Your task to perform on an android device: turn on the 24-hour format for clock Image 0: 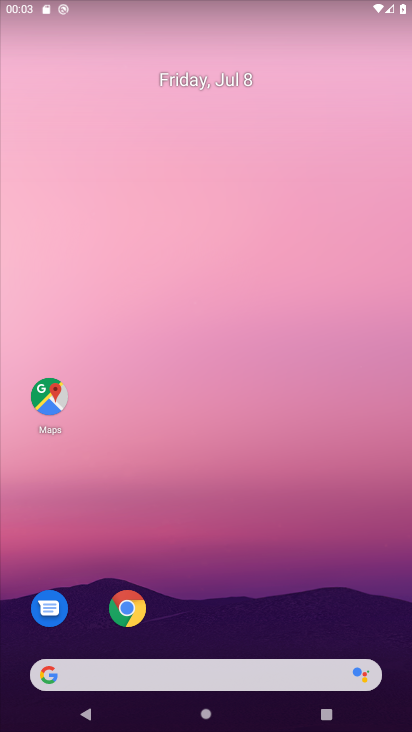
Step 0: drag from (221, 628) to (222, 179)
Your task to perform on an android device: turn on the 24-hour format for clock Image 1: 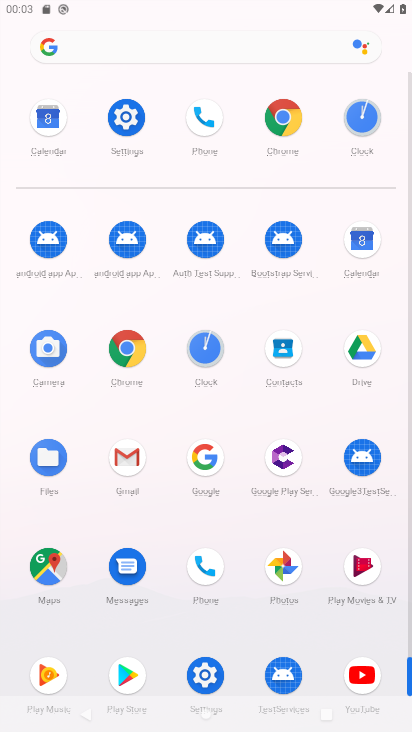
Step 1: click (202, 343)
Your task to perform on an android device: turn on the 24-hour format for clock Image 2: 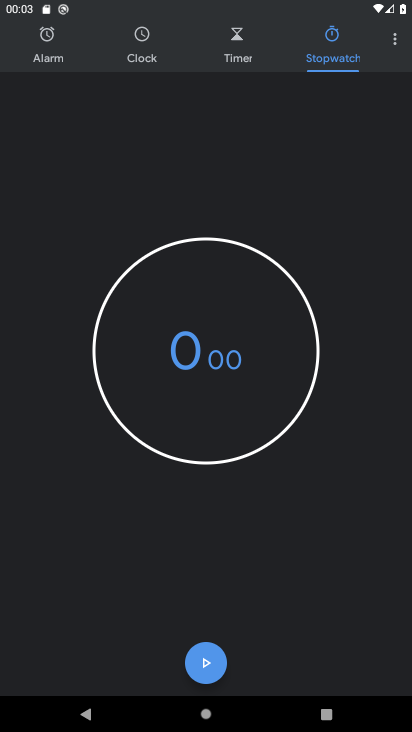
Step 2: click (387, 40)
Your task to perform on an android device: turn on the 24-hour format for clock Image 3: 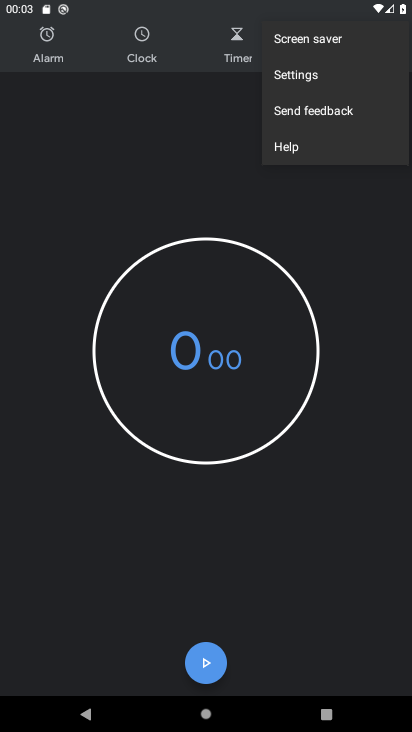
Step 3: click (314, 76)
Your task to perform on an android device: turn on the 24-hour format for clock Image 4: 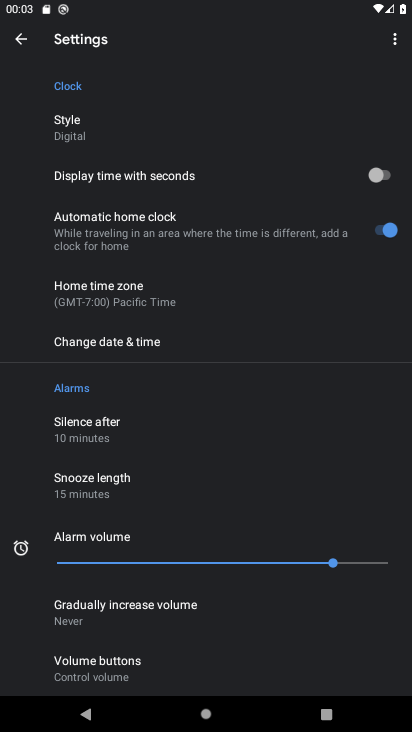
Step 4: click (132, 353)
Your task to perform on an android device: turn on the 24-hour format for clock Image 5: 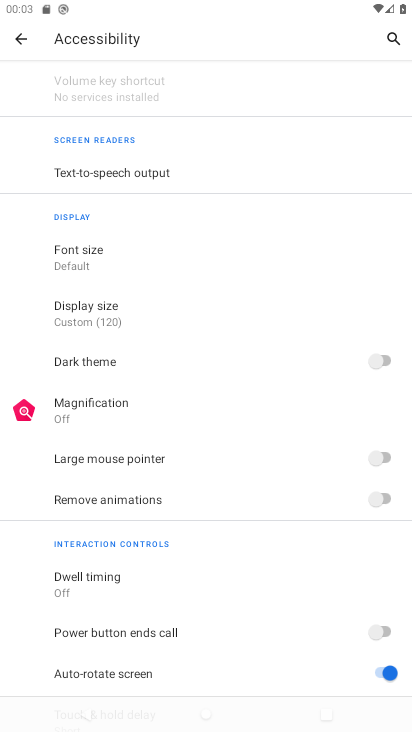
Step 5: click (9, 20)
Your task to perform on an android device: turn on the 24-hour format for clock Image 6: 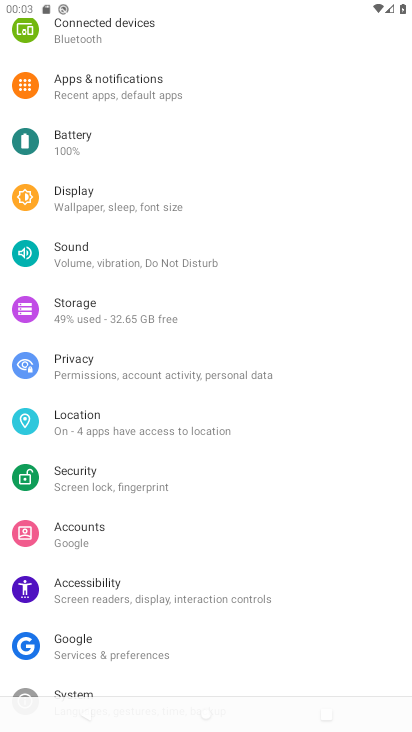
Step 6: press home button
Your task to perform on an android device: turn on the 24-hour format for clock Image 7: 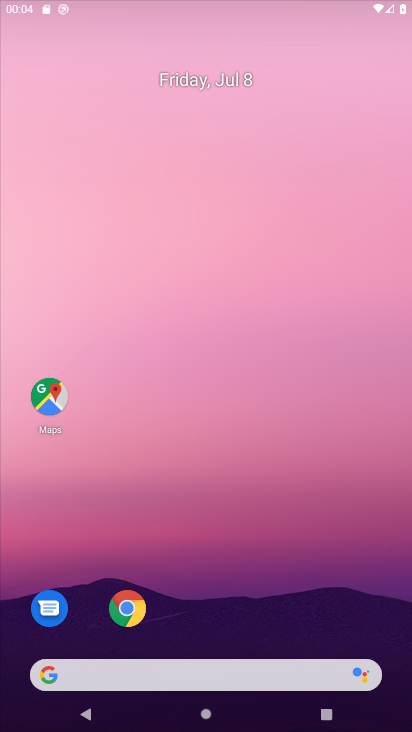
Step 7: drag from (219, 645) to (183, 387)
Your task to perform on an android device: turn on the 24-hour format for clock Image 8: 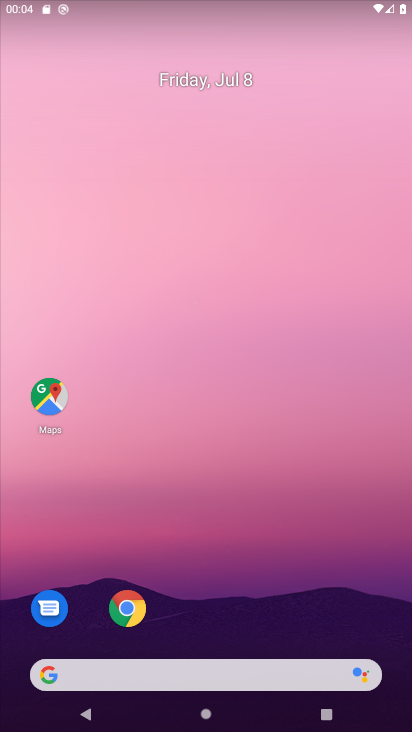
Step 8: drag from (253, 605) to (214, 202)
Your task to perform on an android device: turn on the 24-hour format for clock Image 9: 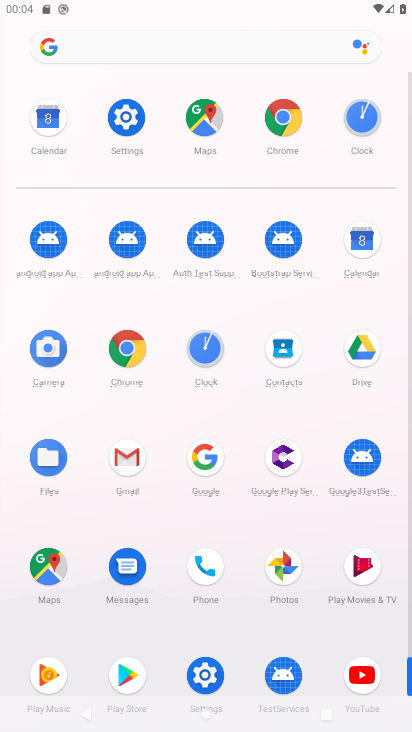
Step 9: click (205, 343)
Your task to perform on an android device: turn on the 24-hour format for clock Image 10: 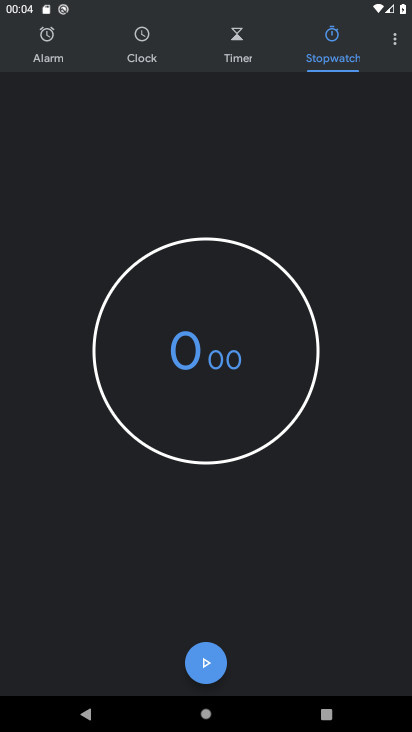
Step 10: click (392, 27)
Your task to perform on an android device: turn on the 24-hour format for clock Image 11: 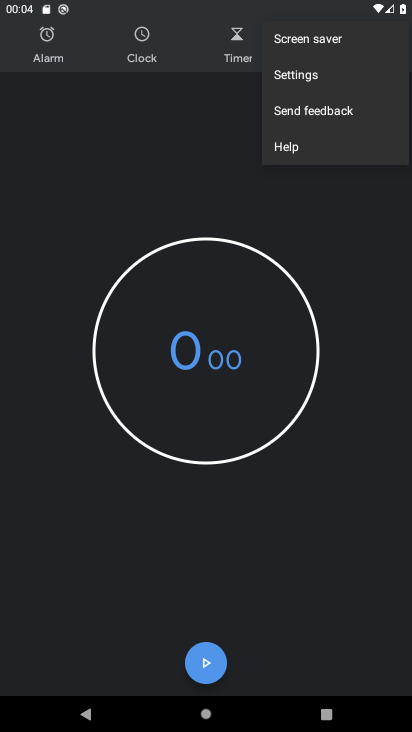
Step 11: click (330, 74)
Your task to perform on an android device: turn on the 24-hour format for clock Image 12: 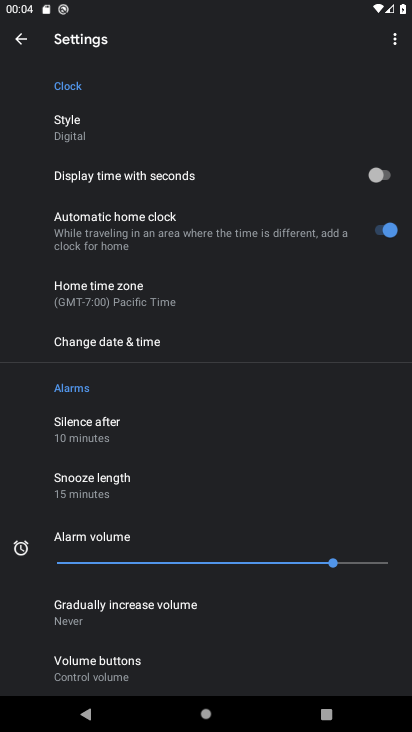
Step 12: click (166, 326)
Your task to perform on an android device: turn on the 24-hour format for clock Image 13: 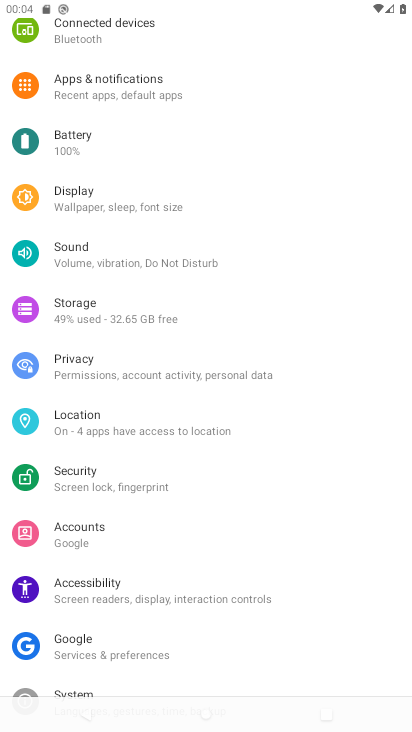
Step 13: task complete